Your task to perform on an android device: see creations saved in the google photos Image 0: 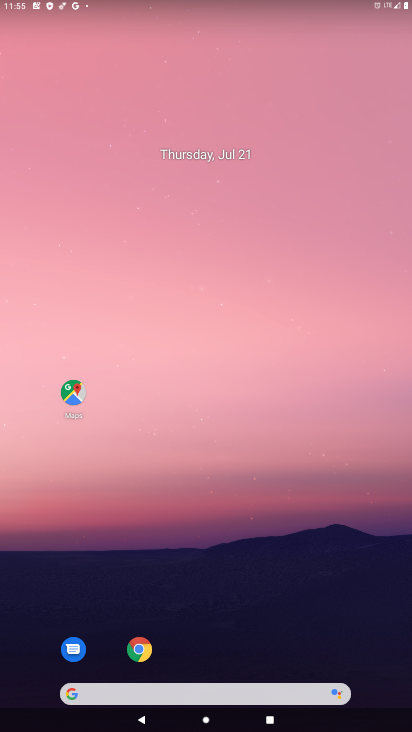
Step 0: drag from (375, 608) to (280, 49)
Your task to perform on an android device: see creations saved in the google photos Image 1: 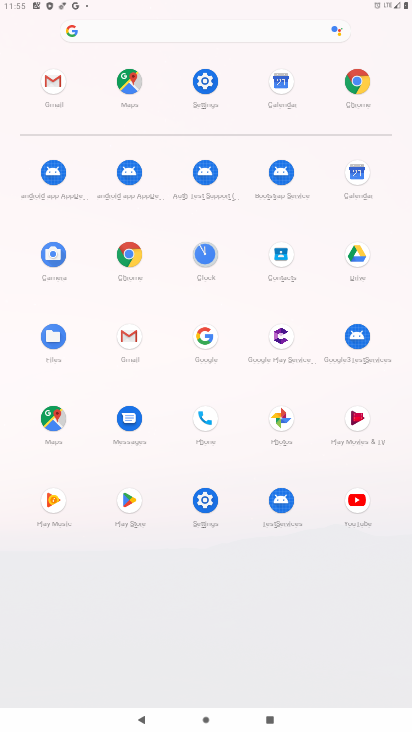
Step 1: click (284, 425)
Your task to perform on an android device: see creations saved in the google photos Image 2: 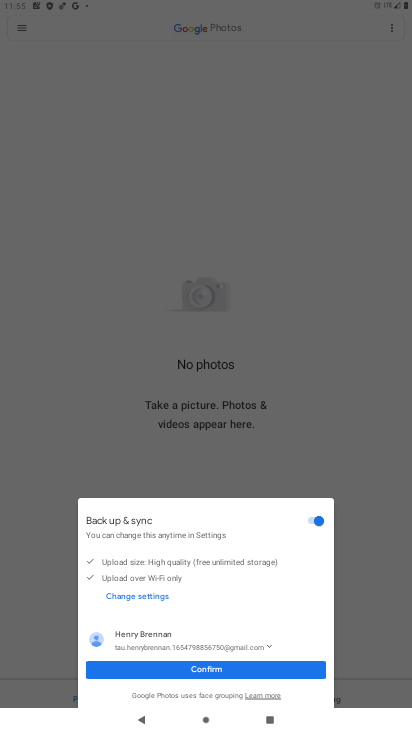
Step 2: click (215, 659)
Your task to perform on an android device: see creations saved in the google photos Image 3: 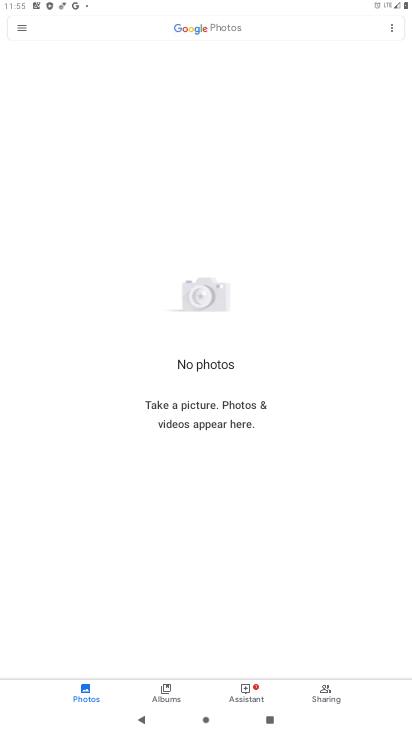
Step 3: task complete